Your task to perform on an android device: manage bookmarks in the chrome app Image 0: 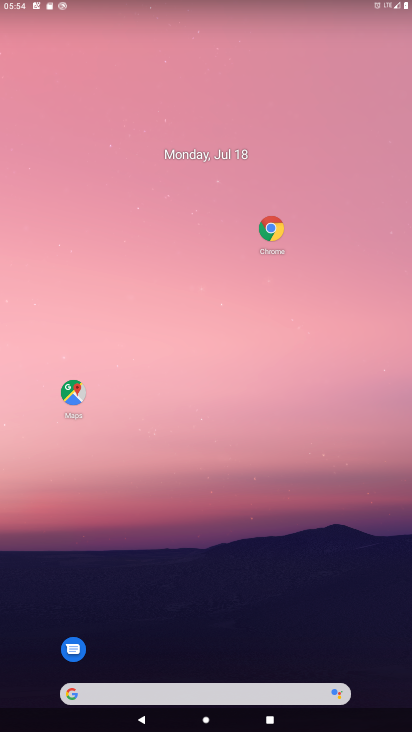
Step 0: click (283, 208)
Your task to perform on an android device: manage bookmarks in the chrome app Image 1: 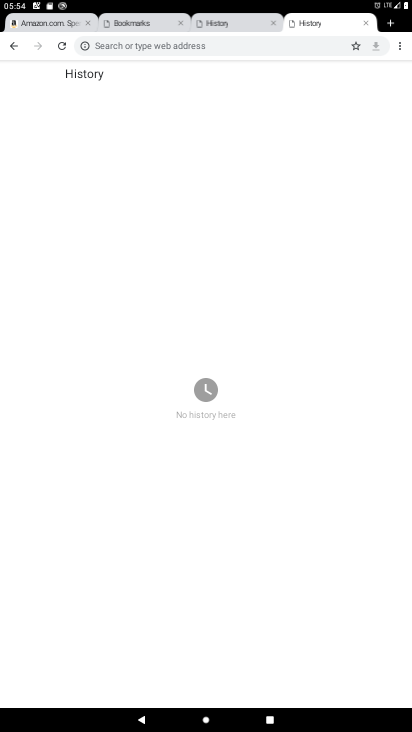
Step 1: click (397, 47)
Your task to perform on an android device: manage bookmarks in the chrome app Image 2: 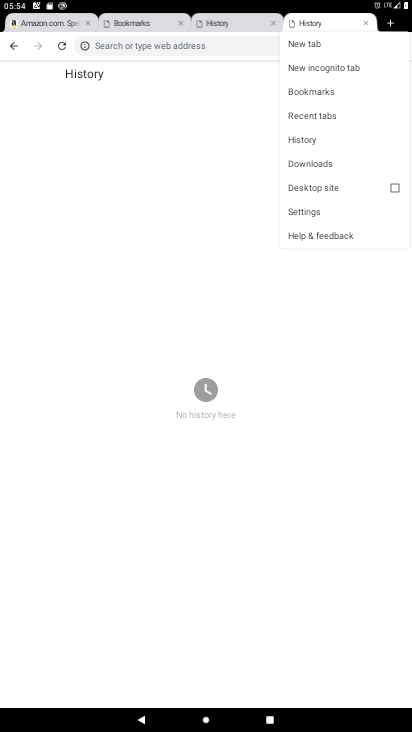
Step 2: click (343, 90)
Your task to perform on an android device: manage bookmarks in the chrome app Image 3: 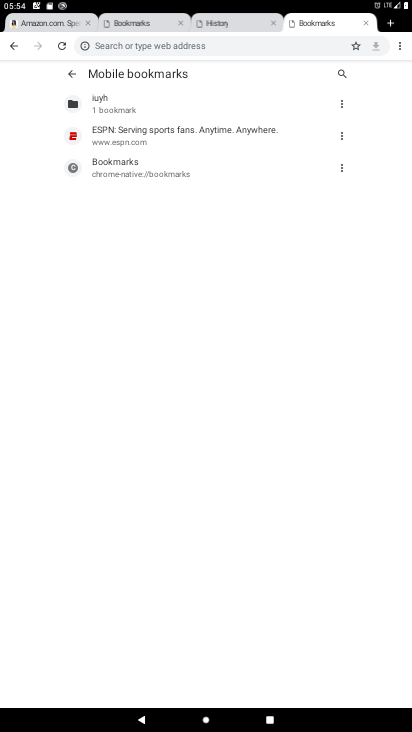
Step 3: click (332, 176)
Your task to perform on an android device: manage bookmarks in the chrome app Image 4: 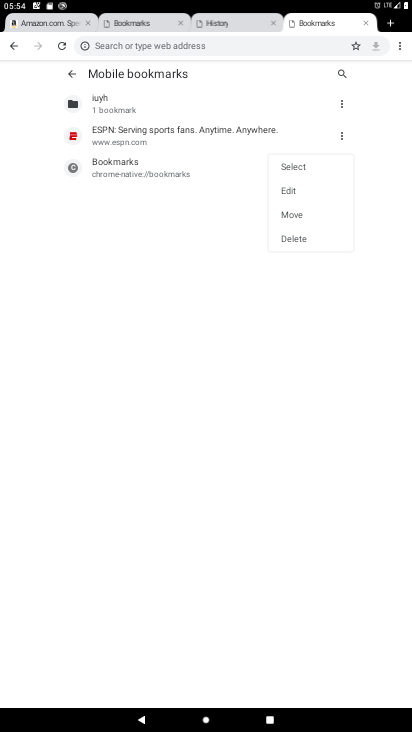
Step 4: click (309, 236)
Your task to perform on an android device: manage bookmarks in the chrome app Image 5: 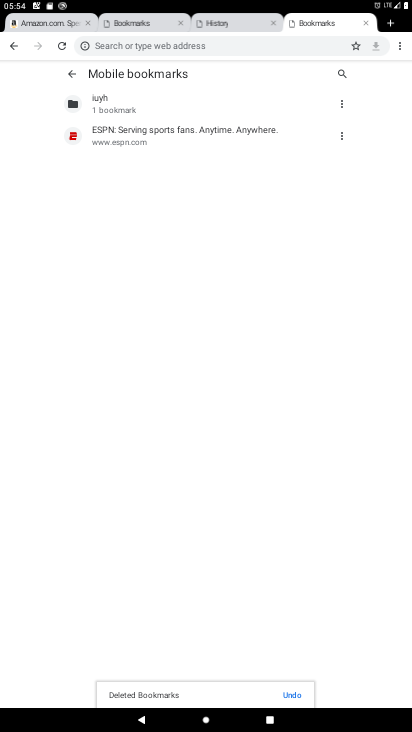
Step 5: task complete